Your task to perform on an android device: turn off priority inbox in the gmail app Image 0: 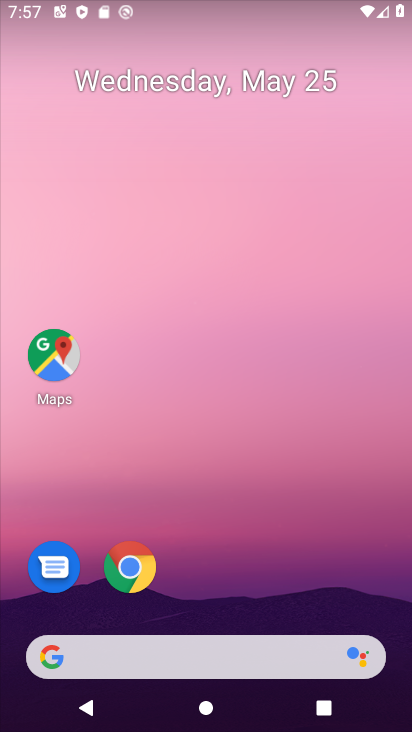
Step 0: drag from (345, 554) to (293, 98)
Your task to perform on an android device: turn off priority inbox in the gmail app Image 1: 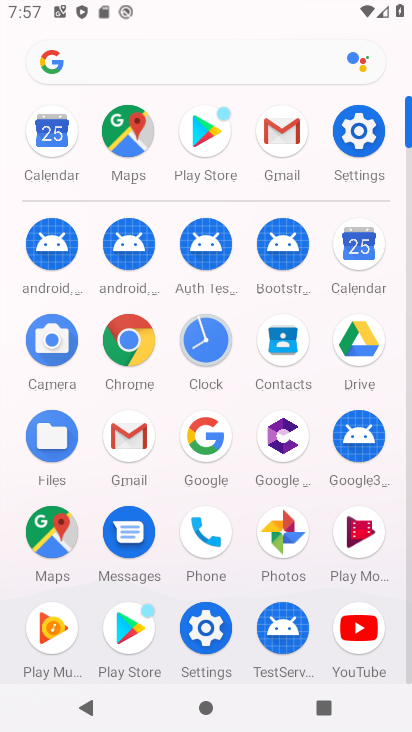
Step 1: click (270, 165)
Your task to perform on an android device: turn off priority inbox in the gmail app Image 2: 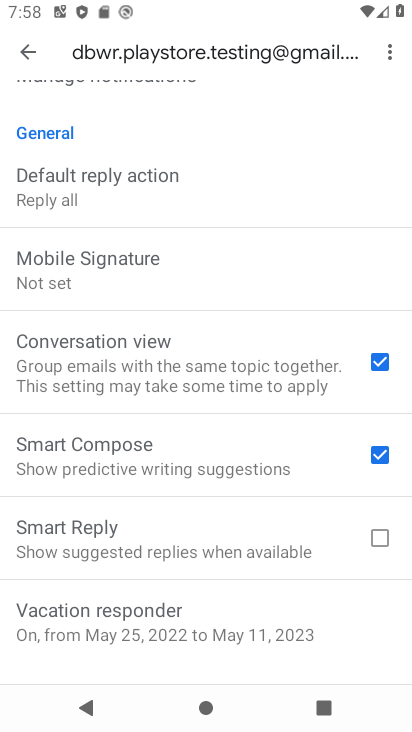
Step 2: drag from (237, 219) to (225, 702)
Your task to perform on an android device: turn off priority inbox in the gmail app Image 3: 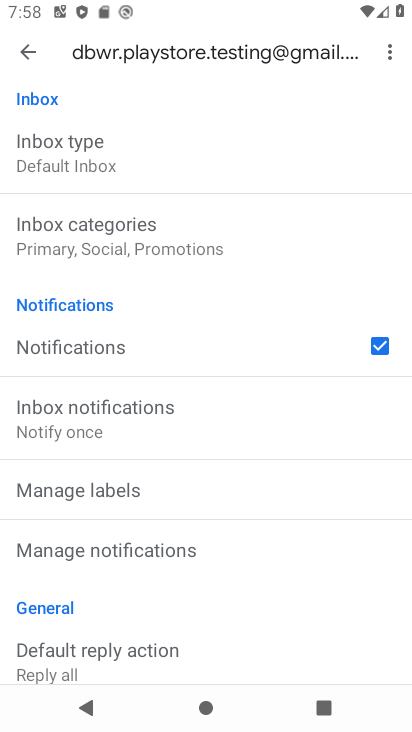
Step 3: click (208, 422)
Your task to perform on an android device: turn off priority inbox in the gmail app Image 4: 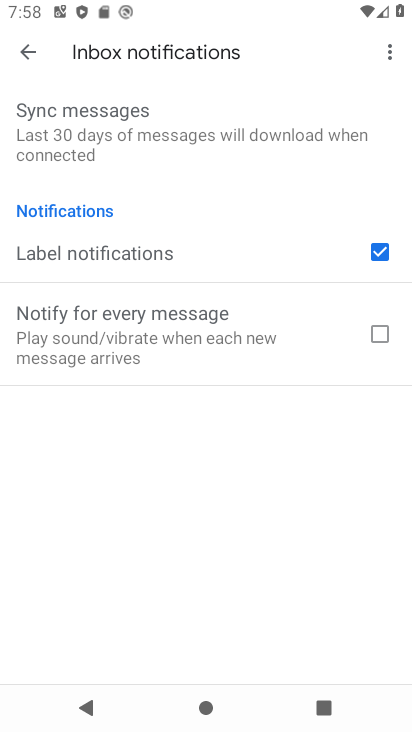
Step 4: task complete